Your task to perform on an android device: Clear the cart on bestbuy.com. Search for razer kraken on bestbuy.com, select the first entry, add it to the cart, then select checkout. Image 0: 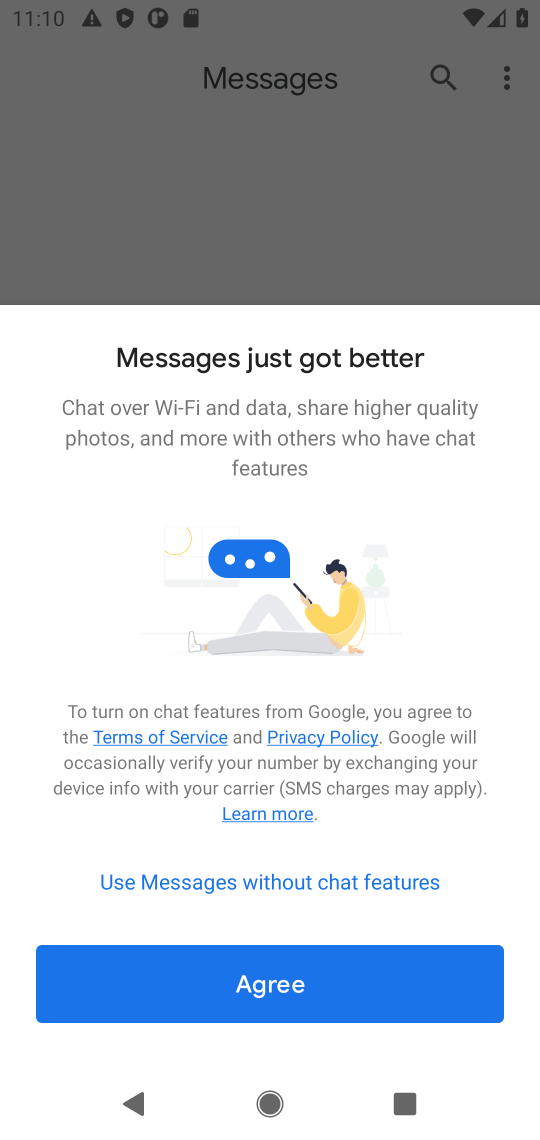
Step 0: press home button
Your task to perform on an android device: Clear the cart on bestbuy.com. Search for razer kraken on bestbuy.com, select the first entry, add it to the cart, then select checkout. Image 1: 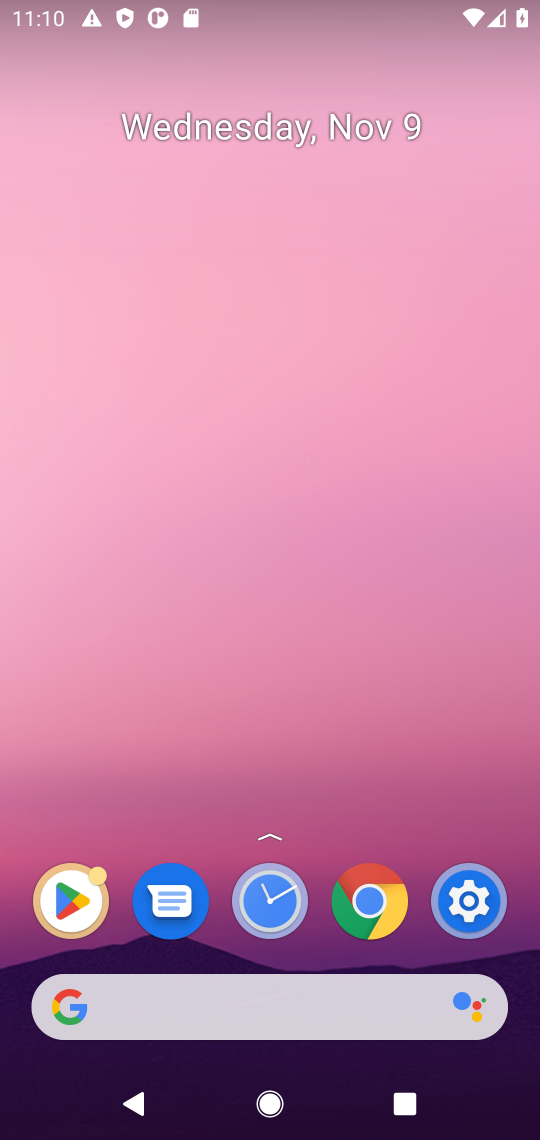
Step 1: click (366, 901)
Your task to perform on an android device: Clear the cart on bestbuy.com. Search for razer kraken on bestbuy.com, select the first entry, add it to the cart, then select checkout. Image 2: 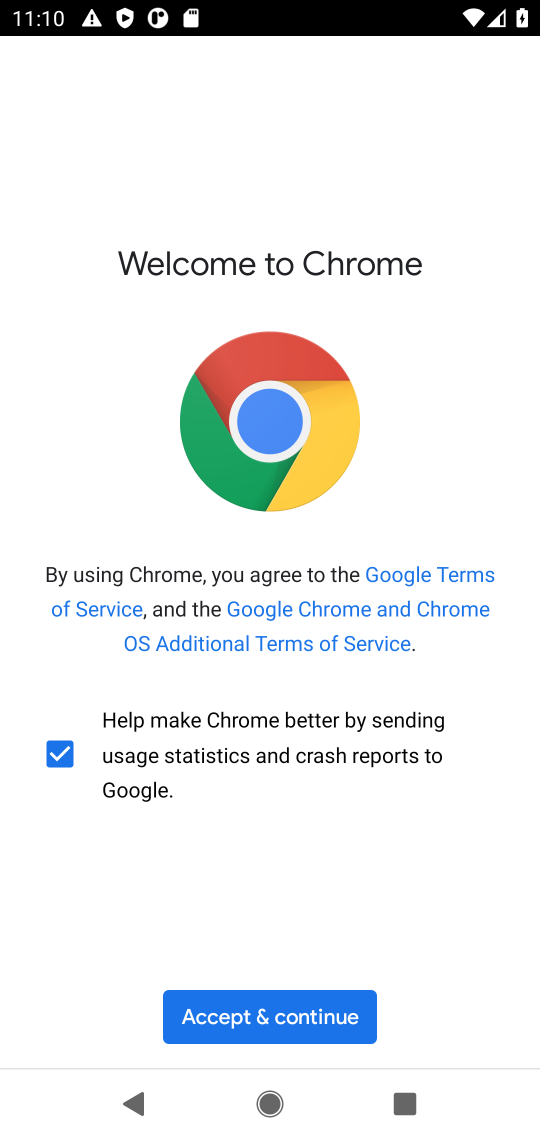
Step 2: click (319, 1017)
Your task to perform on an android device: Clear the cart on bestbuy.com. Search for razer kraken on bestbuy.com, select the first entry, add it to the cart, then select checkout. Image 3: 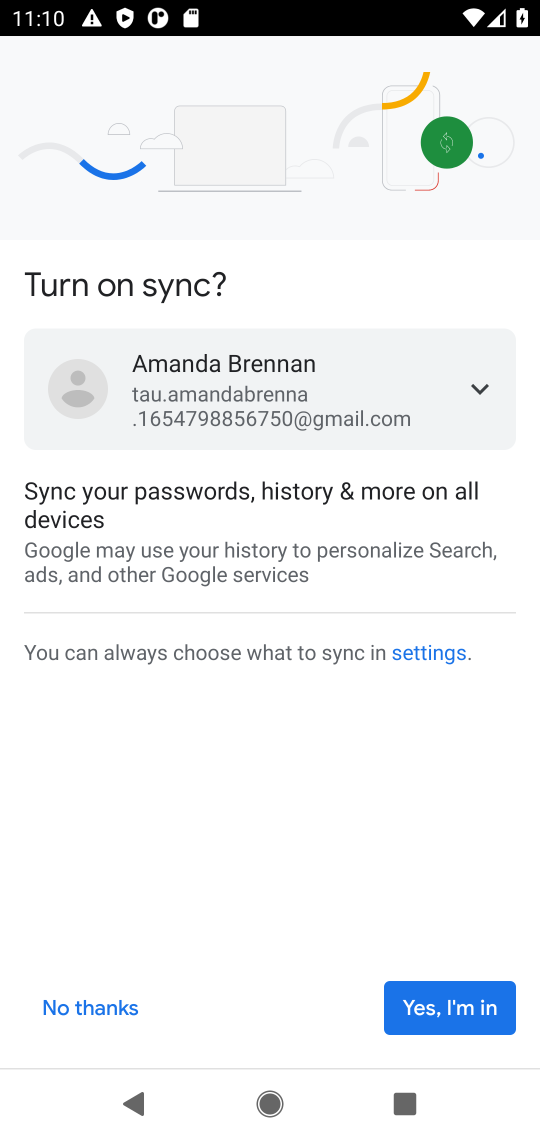
Step 3: click (443, 1006)
Your task to perform on an android device: Clear the cart on bestbuy.com. Search for razer kraken on bestbuy.com, select the first entry, add it to the cart, then select checkout. Image 4: 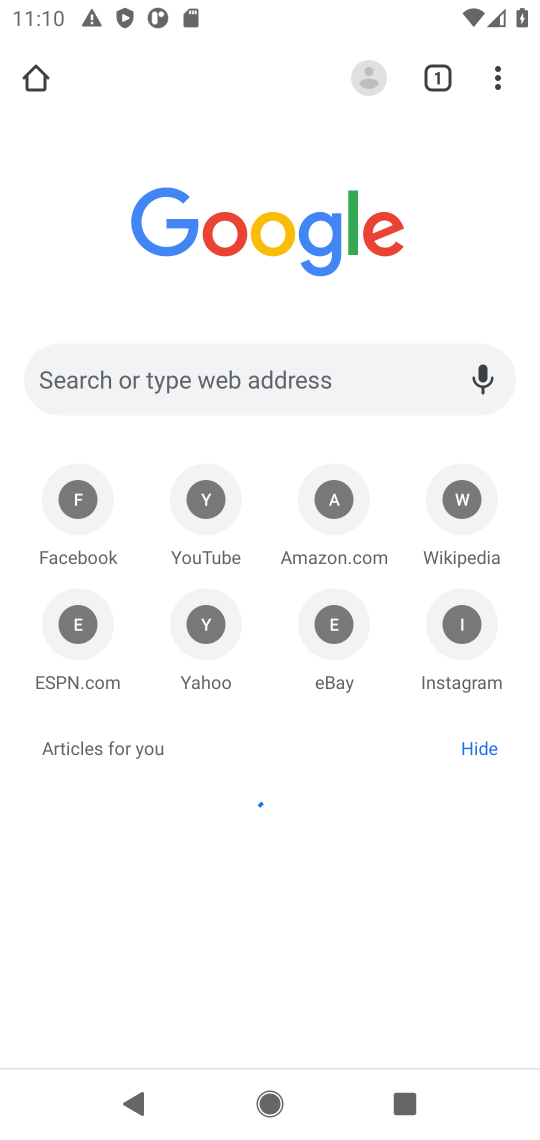
Step 4: click (333, 372)
Your task to perform on an android device: Clear the cart on bestbuy.com. Search for razer kraken on bestbuy.com, select the first entry, add it to the cart, then select checkout. Image 5: 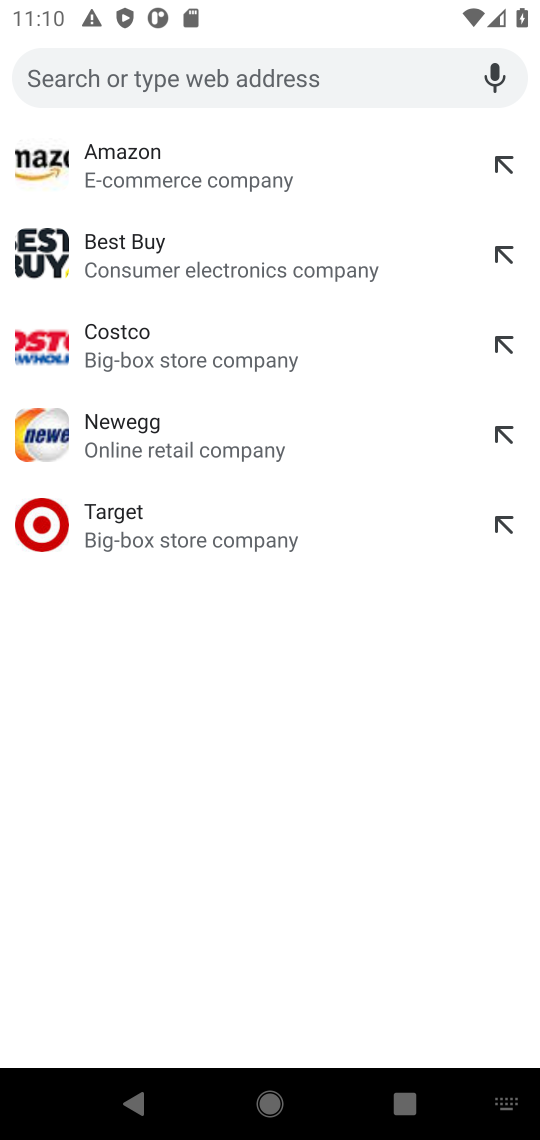
Step 5: type "bestbuy.com"
Your task to perform on an android device: Clear the cart on bestbuy.com. Search for razer kraken on bestbuy.com, select the first entry, add it to the cart, then select checkout. Image 6: 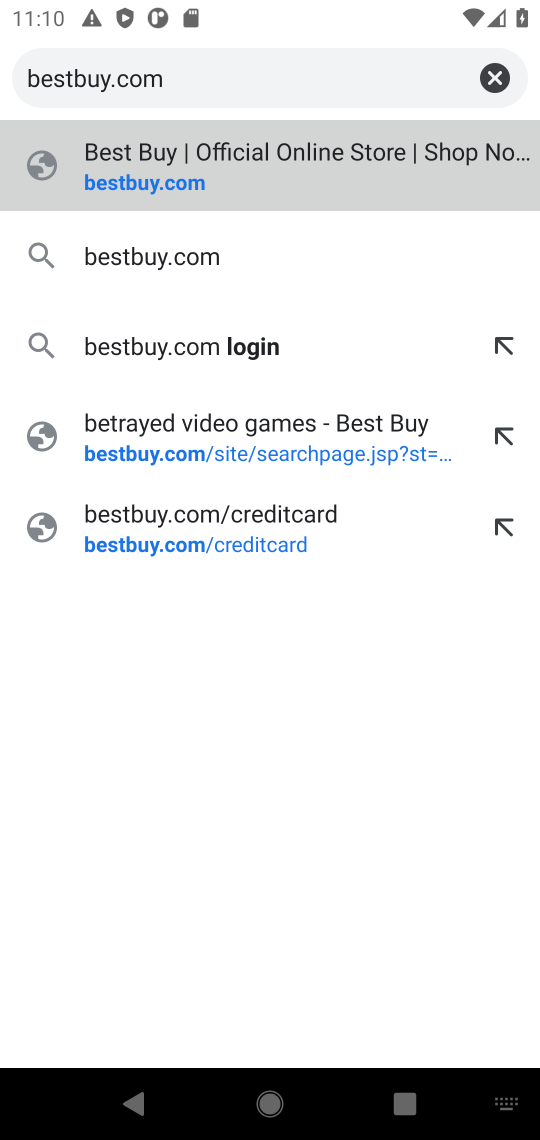
Step 6: click (205, 263)
Your task to perform on an android device: Clear the cart on bestbuy.com. Search for razer kraken on bestbuy.com, select the first entry, add it to the cart, then select checkout. Image 7: 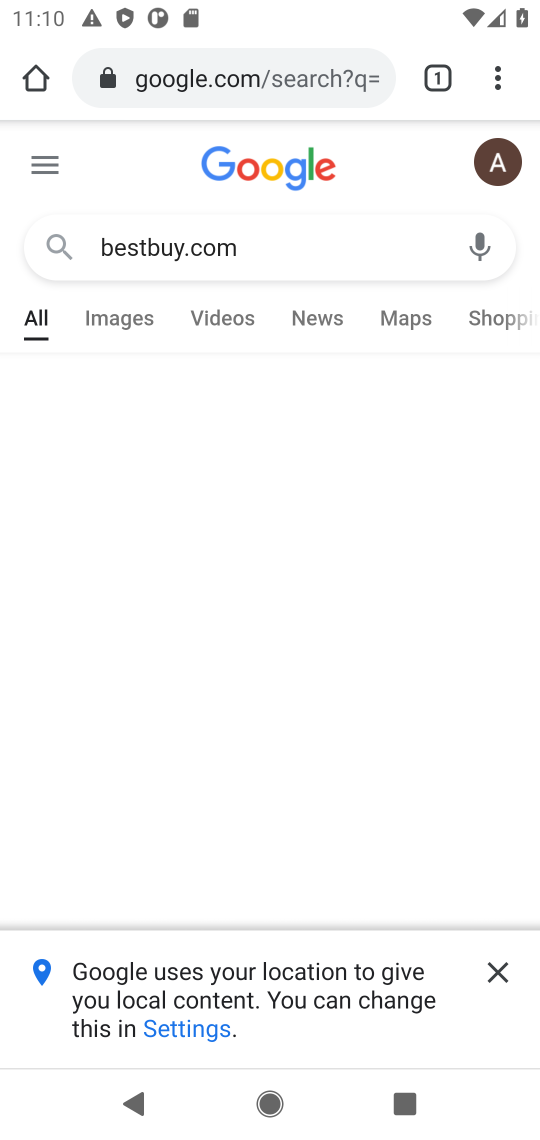
Step 7: click (490, 970)
Your task to perform on an android device: Clear the cart on bestbuy.com. Search for razer kraken on bestbuy.com, select the first entry, add it to the cart, then select checkout. Image 8: 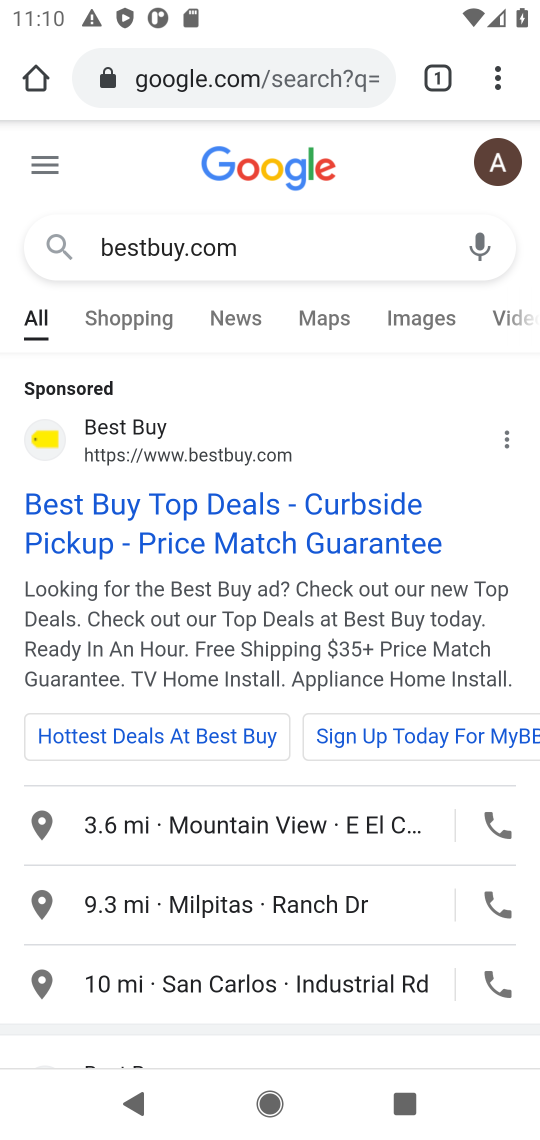
Step 8: click (184, 452)
Your task to perform on an android device: Clear the cart on bestbuy.com. Search for razer kraken on bestbuy.com, select the first entry, add it to the cart, then select checkout. Image 9: 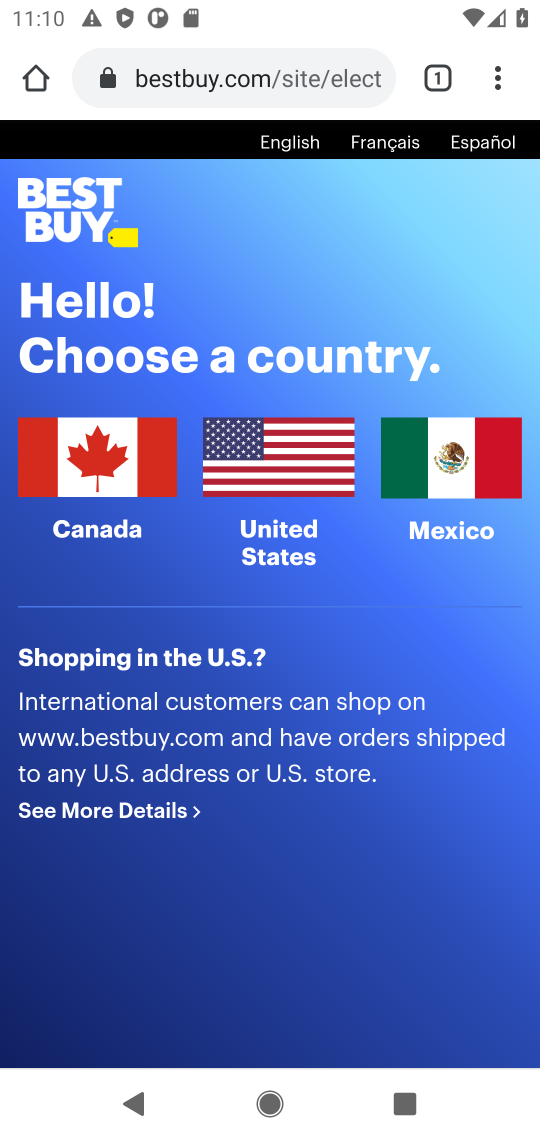
Step 9: click (276, 468)
Your task to perform on an android device: Clear the cart on bestbuy.com. Search for razer kraken on bestbuy.com, select the first entry, add it to the cart, then select checkout. Image 10: 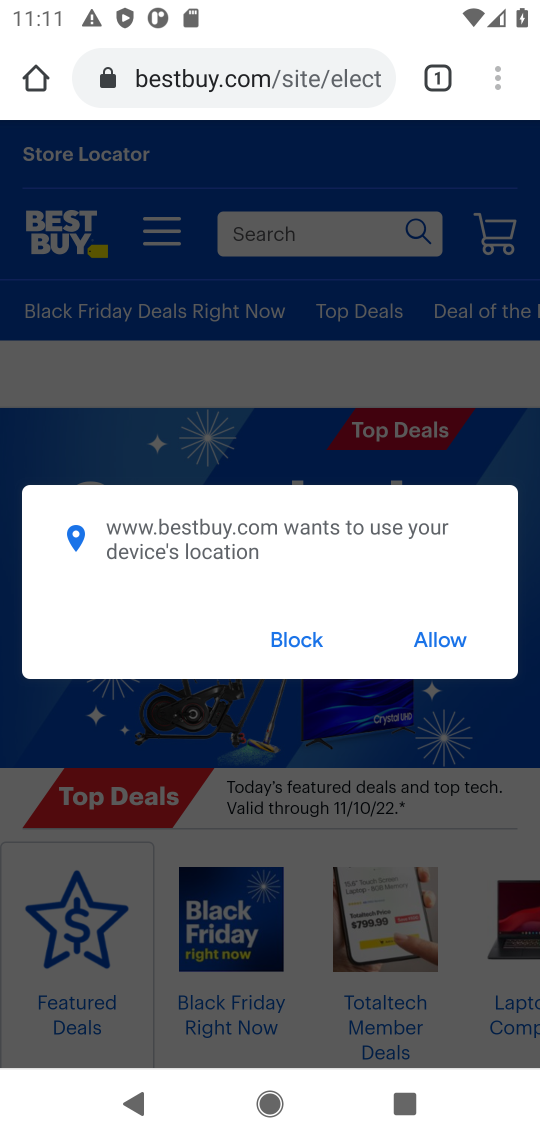
Step 10: click (300, 640)
Your task to perform on an android device: Clear the cart on bestbuy.com. Search for razer kraken on bestbuy.com, select the first entry, add it to the cart, then select checkout. Image 11: 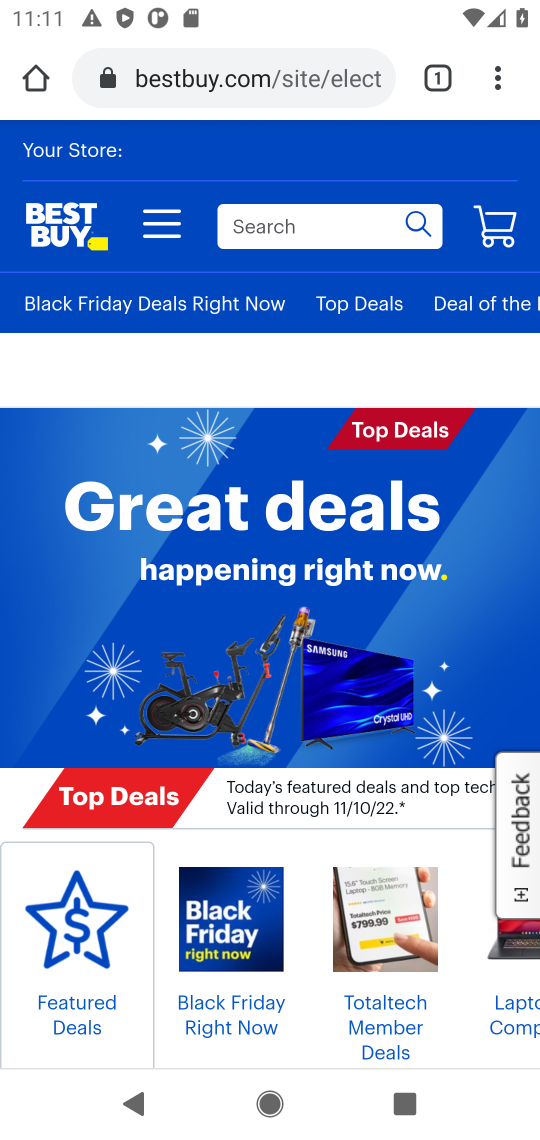
Step 11: click (359, 234)
Your task to perform on an android device: Clear the cart on bestbuy.com. Search for razer kraken on bestbuy.com, select the first entry, add it to the cart, then select checkout. Image 12: 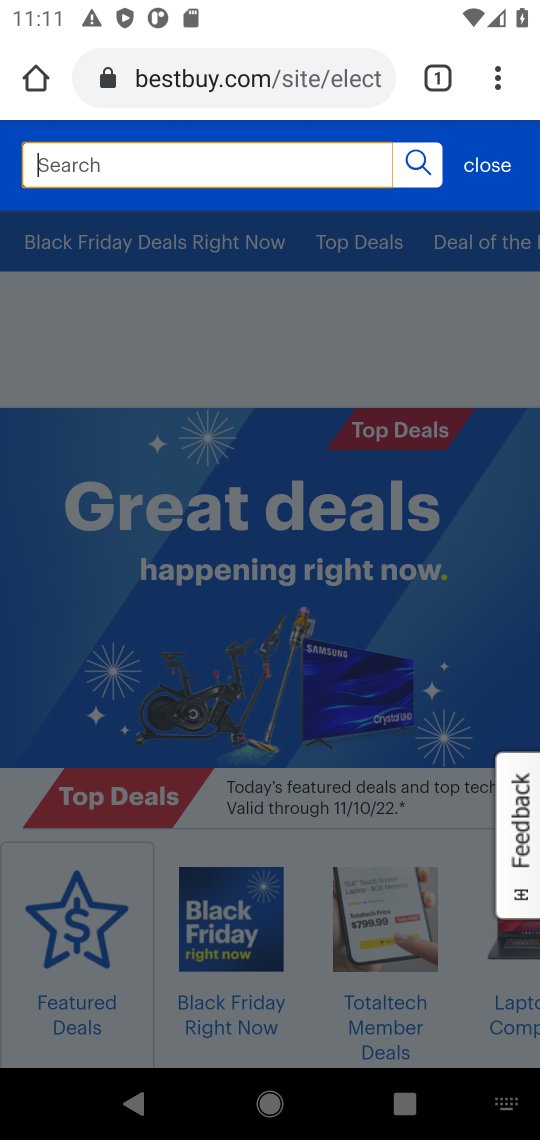
Step 12: type " razer kraken"
Your task to perform on an android device: Clear the cart on bestbuy.com. Search for razer kraken on bestbuy.com, select the first entry, add it to the cart, then select checkout. Image 13: 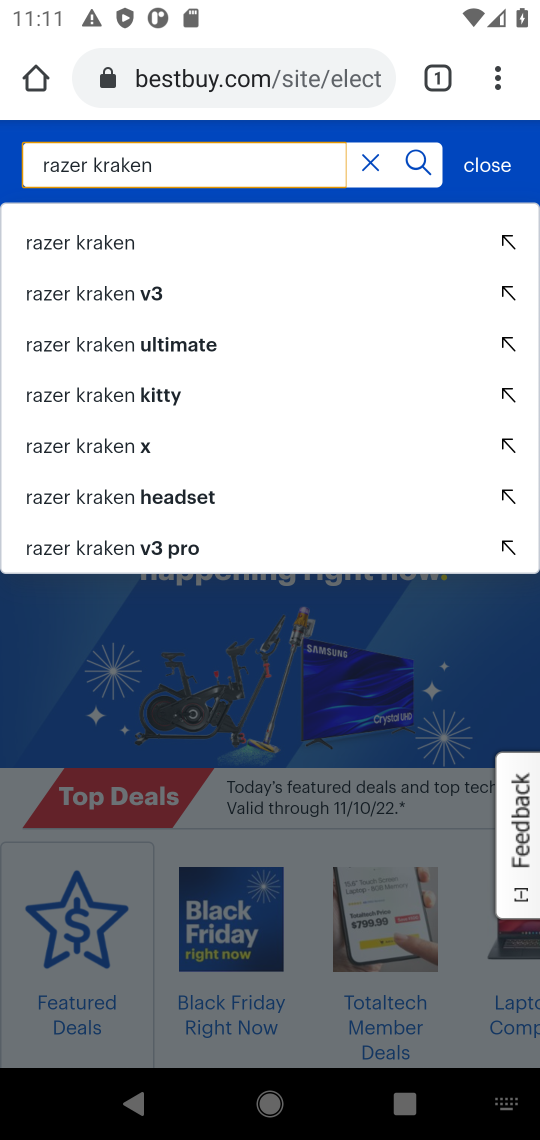
Step 13: click (90, 236)
Your task to perform on an android device: Clear the cart on bestbuy.com. Search for razer kraken on bestbuy.com, select the first entry, add it to the cart, then select checkout. Image 14: 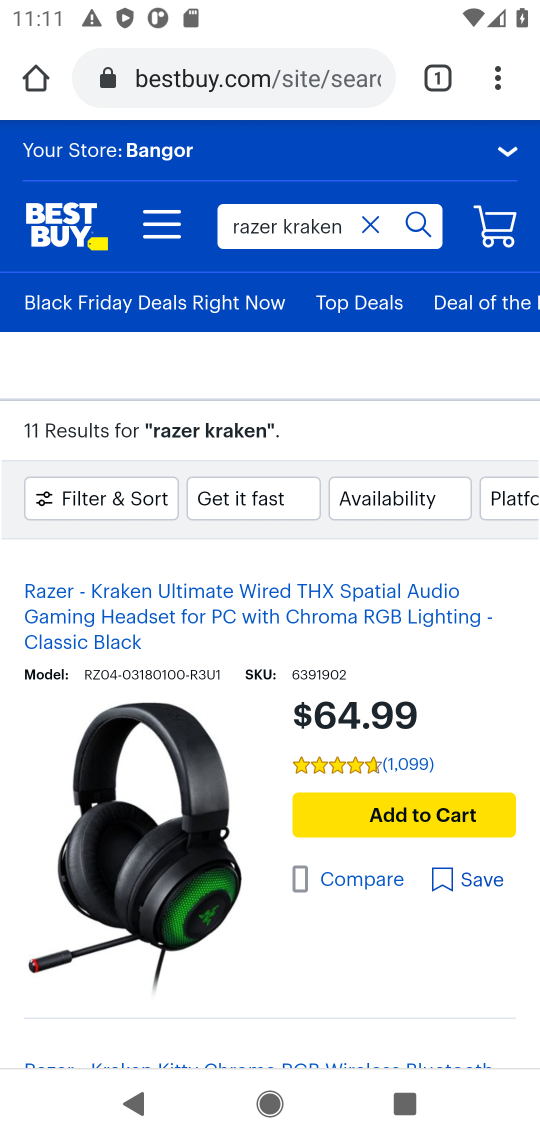
Step 14: click (117, 793)
Your task to perform on an android device: Clear the cart on bestbuy.com. Search for razer kraken on bestbuy.com, select the first entry, add it to the cart, then select checkout. Image 15: 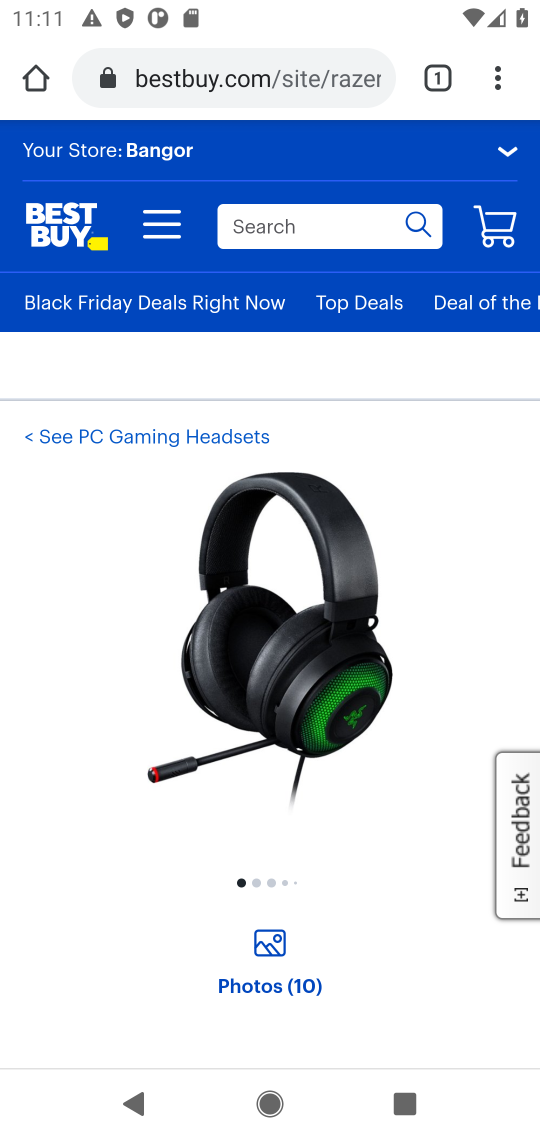
Step 15: drag from (351, 797) to (346, 189)
Your task to perform on an android device: Clear the cart on bestbuy.com. Search for razer kraken on bestbuy.com, select the first entry, add it to the cart, then select checkout. Image 16: 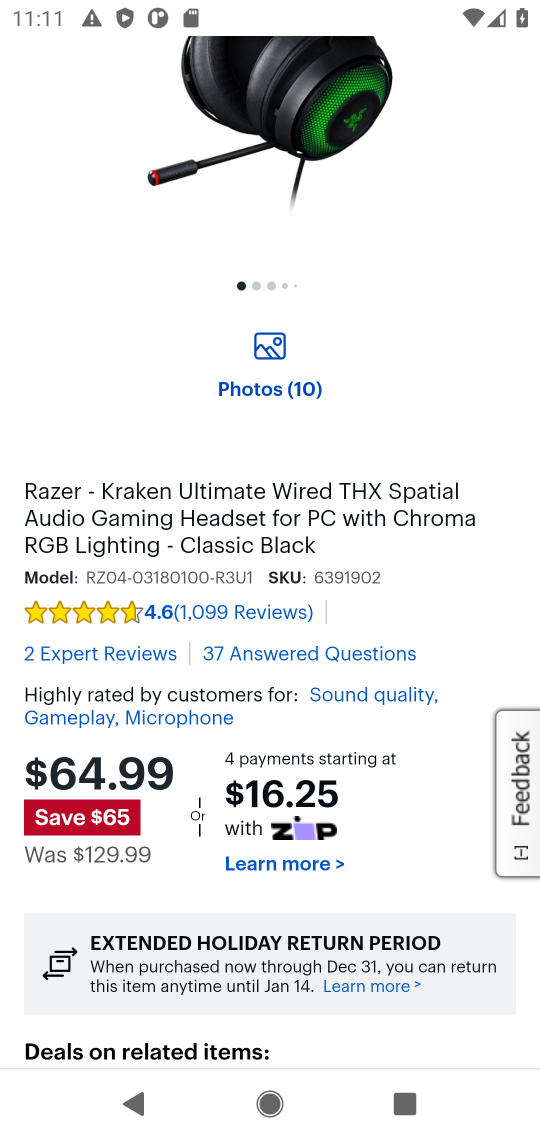
Step 16: drag from (332, 442) to (300, 174)
Your task to perform on an android device: Clear the cart on bestbuy.com. Search for razer kraken on bestbuy.com, select the first entry, add it to the cart, then select checkout. Image 17: 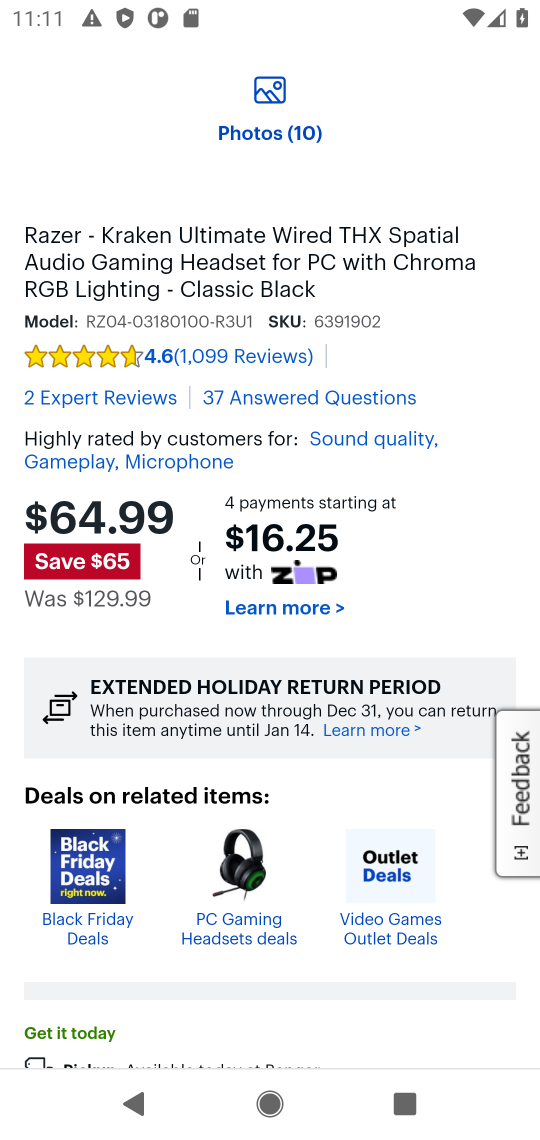
Step 17: drag from (439, 901) to (402, 329)
Your task to perform on an android device: Clear the cart on bestbuy.com. Search for razer kraken on bestbuy.com, select the first entry, add it to the cart, then select checkout. Image 18: 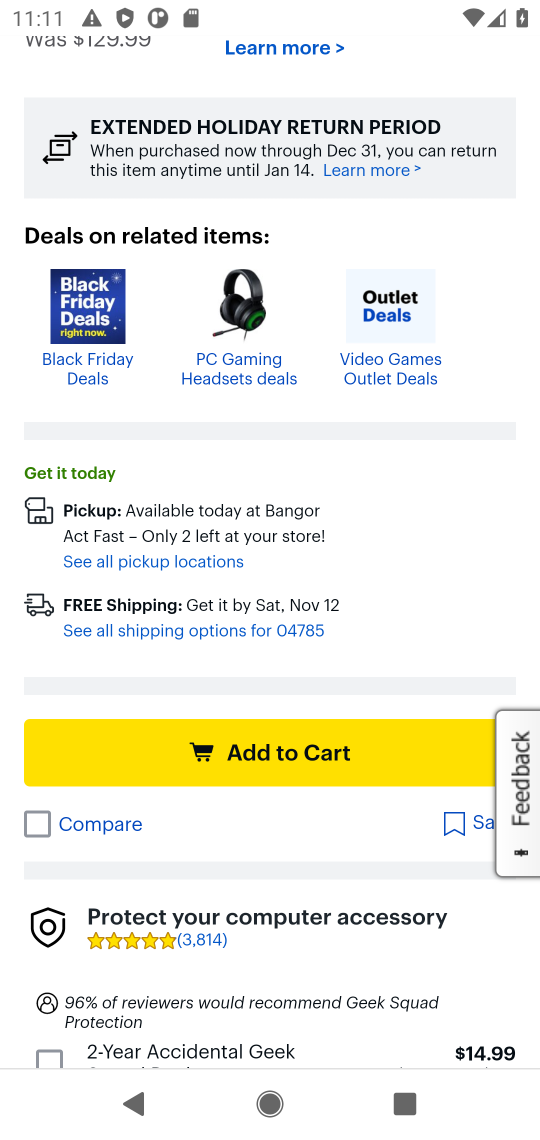
Step 18: click (306, 751)
Your task to perform on an android device: Clear the cart on bestbuy.com. Search for razer kraken on bestbuy.com, select the first entry, add it to the cart, then select checkout. Image 19: 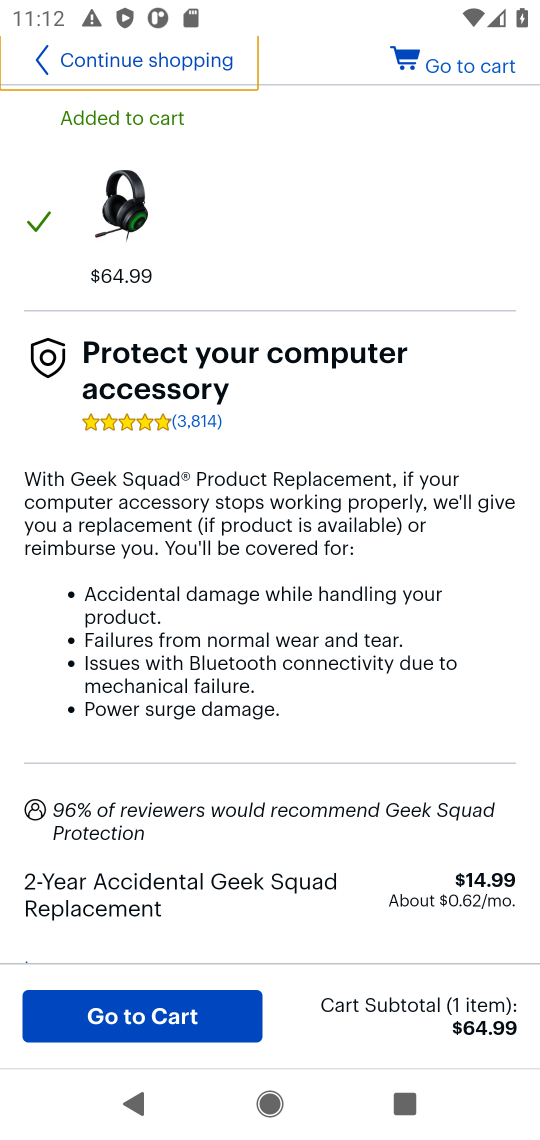
Step 19: click (168, 1014)
Your task to perform on an android device: Clear the cart on bestbuy.com. Search for razer kraken on bestbuy.com, select the first entry, add it to the cart, then select checkout. Image 20: 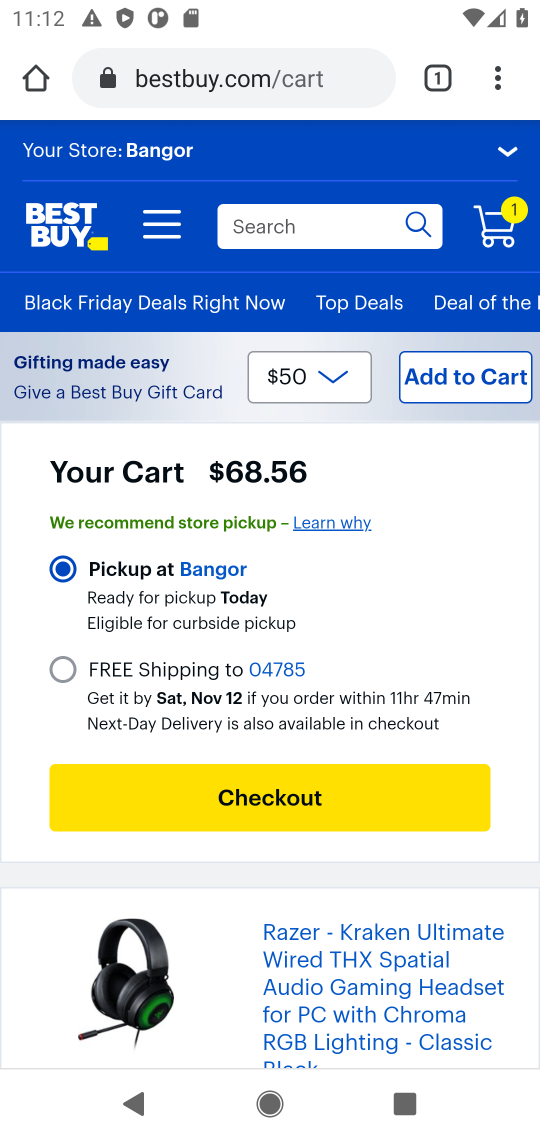
Step 20: click (277, 791)
Your task to perform on an android device: Clear the cart on bestbuy.com. Search for razer kraken on bestbuy.com, select the first entry, add it to the cart, then select checkout. Image 21: 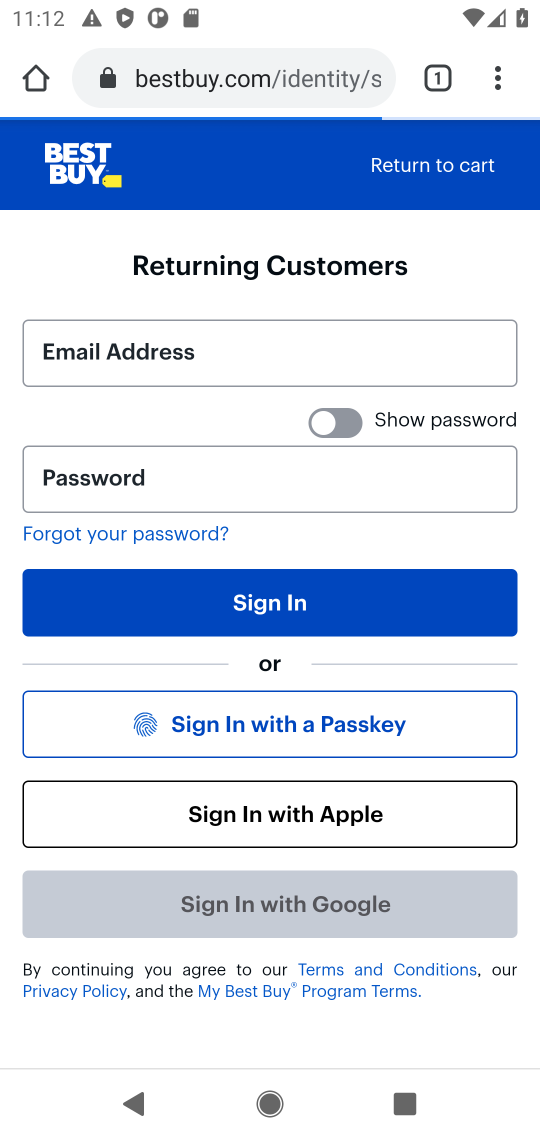
Step 21: task complete